Your task to perform on an android device: see tabs open on other devices in the chrome app Image 0: 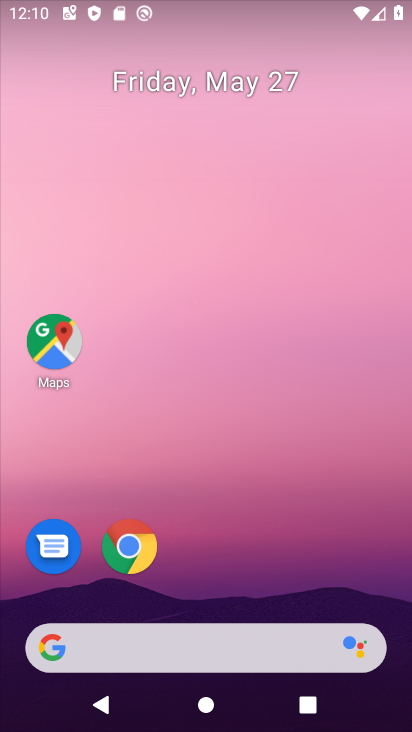
Step 0: click (130, 534)
Your task to perform on an android device: see tabs open on other devices in the chrome app Image 1: 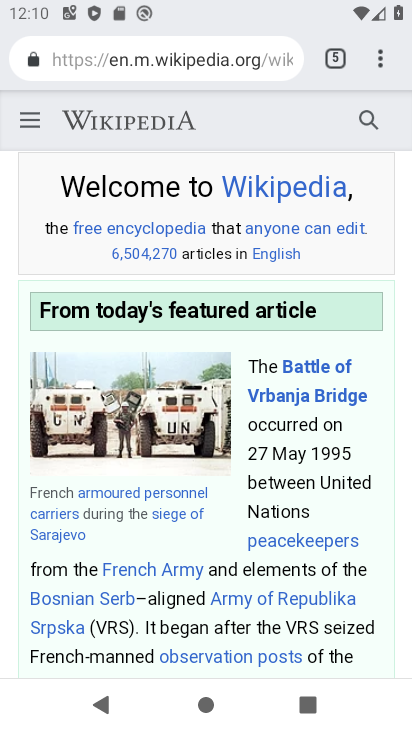
Step 1: click (378, 56)
Your task to perform on an android device: see tabs open on other devices in the chrome app Image 2: 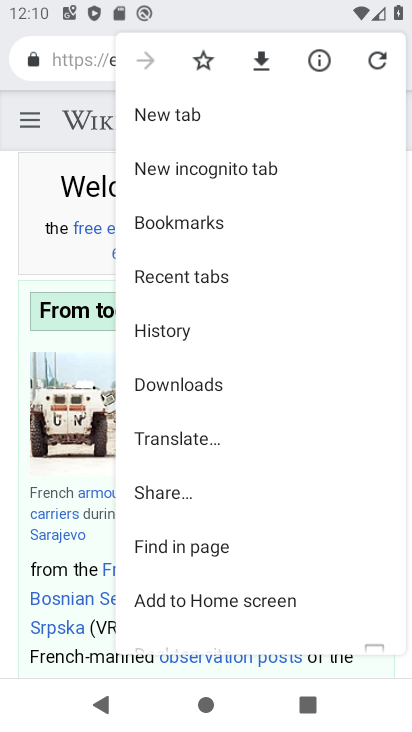
Step 2: click (195, 272)
Your task to perform on an android device: see tabs open on other devices in the chrome app Image 3: 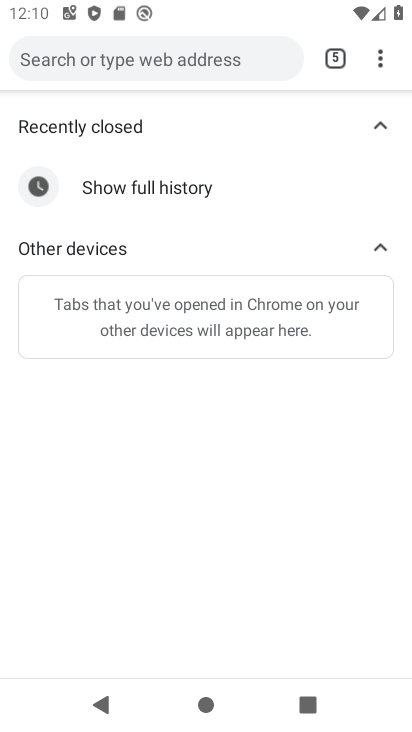
Step 3: task complete